Your task to perform on an android device: Go to Google Image 0: 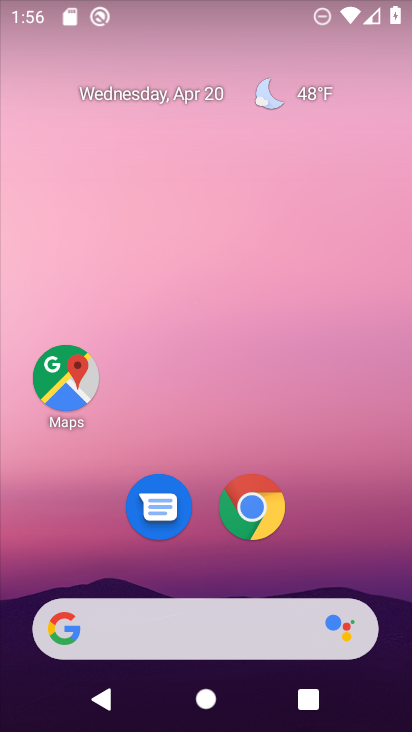
Step 0: drag from (206, 716) to (207, 62)
Your task to perform on an android device: Go to Google Image 1: 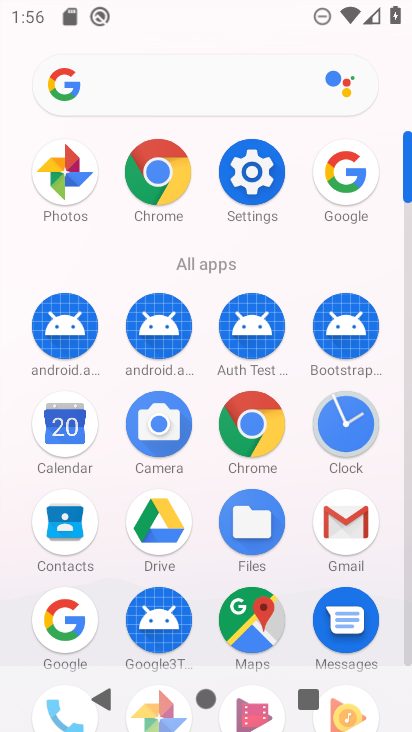
Step 1: click (351, 179)
Your task to perform on an android device: Go to Google Image 2: 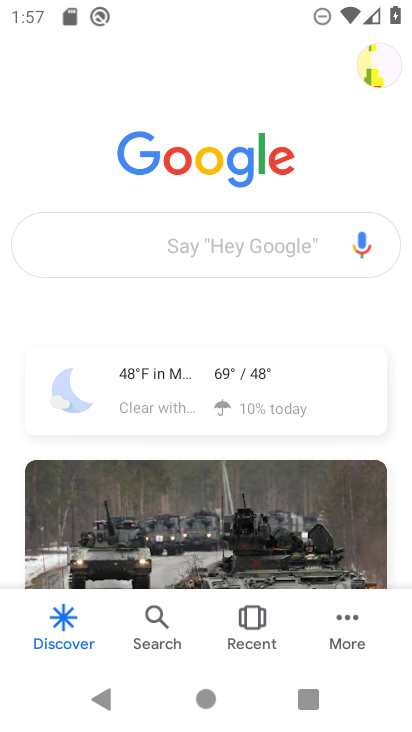
Step 2: task complete